Your task to perform on an android device: check out phone information Image 0: 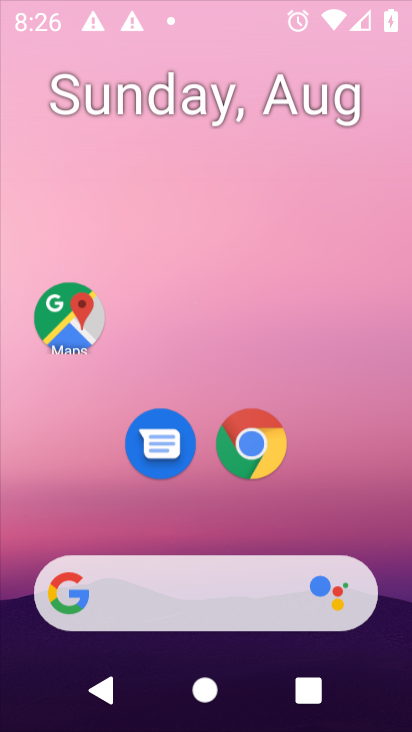
Step 0: press home button
Your task to perform on an android device: check out phone information Image 1: 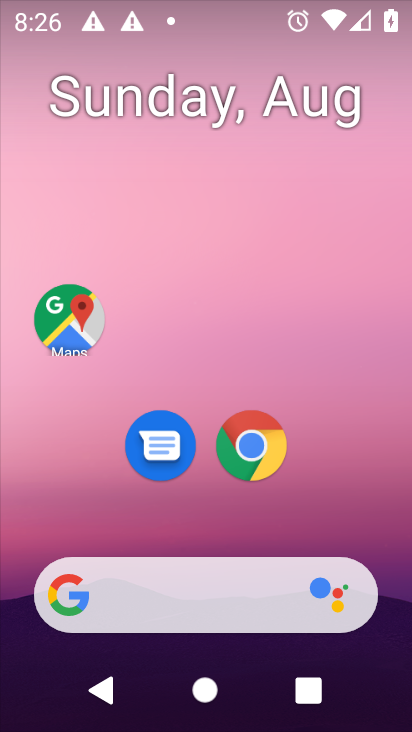
Step 1: drag from (205, 531) to (242, 107)
Your task to perform on an android device: check out phone information Image 2: 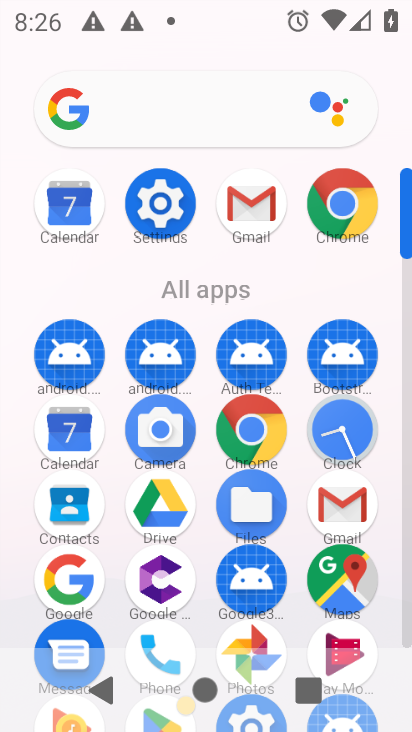
Step 2: click (158, 199)
Your task to perform on an android device: check out phone information Image 3: 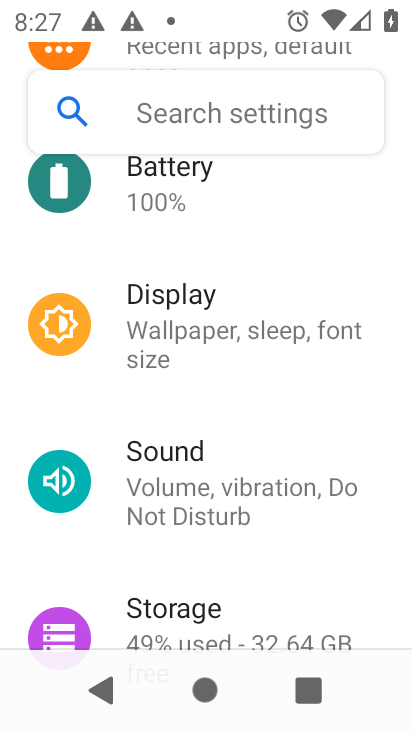
Step 3: drag from (235, 594) to (241, 175)
Your task to perform on an android device: check out phone information Image 4: 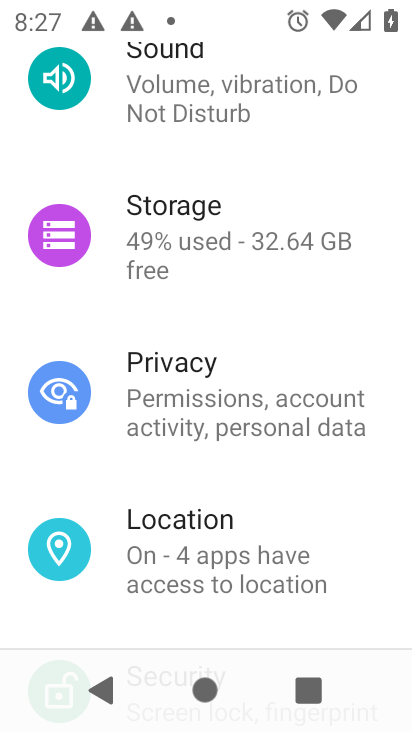
Step 4: drag from (221, 609) to (245, 140)
Your task to perform on an android device: check out phone information Image 5: 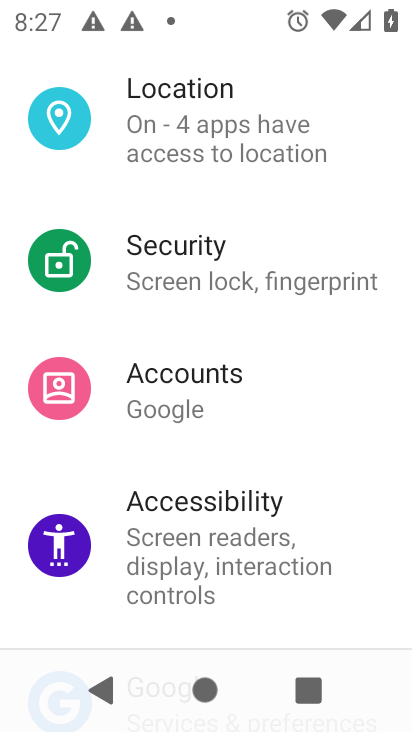
Step 5: drag from (223, 614) to (270, 131)
Your task to perform on an android device: check out phone information Image 6: 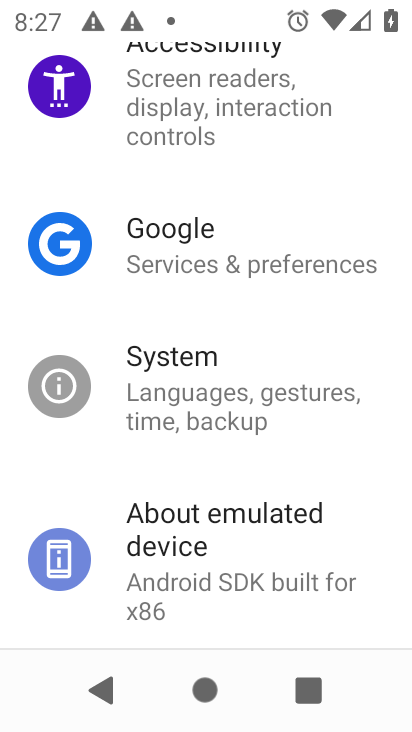
Step 6: click (208, 558)
Your task to perform on an android device: check out phone information Image 7: 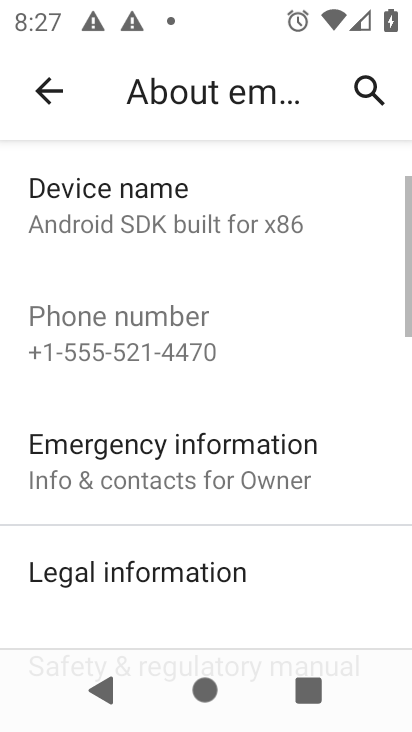
Step 7: task complete